Your task to perform on an android device: turn on the 24-hour format for clock Image 0: 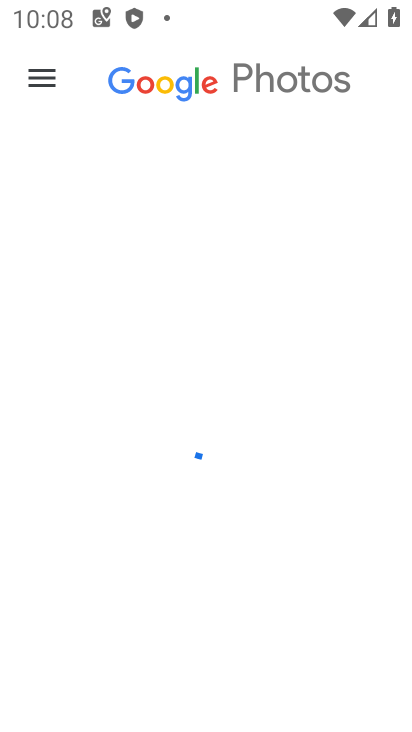
Step 0: press home button
Your task to perform on an android device: turn on the 24-hour format for clock Image 1: 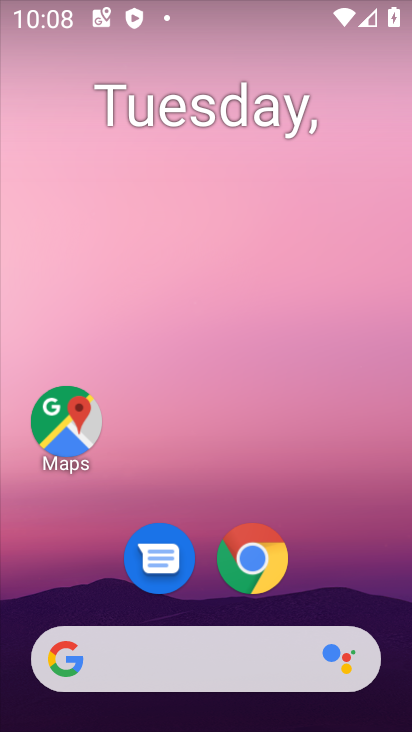
Step 1: drag from (328, 233) to (328, 14)
Your task to perform on an android device: turn on the 24-hour format for clock Image 2: 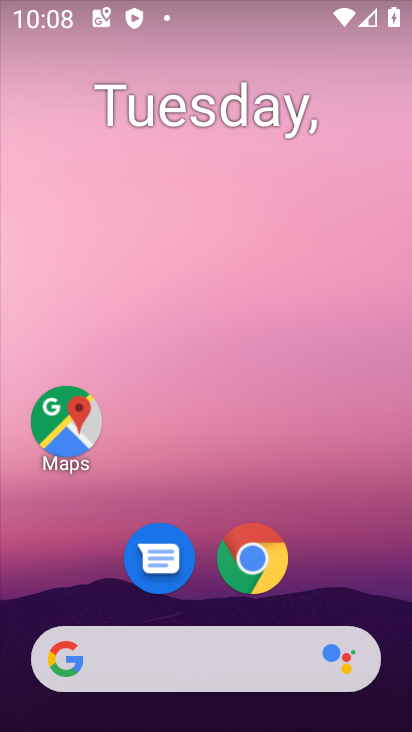
Step 2: drag from (335, 579) to (345, 1)
Your task to perform on an android device: turn on the 24-hour format for clock Image 3: 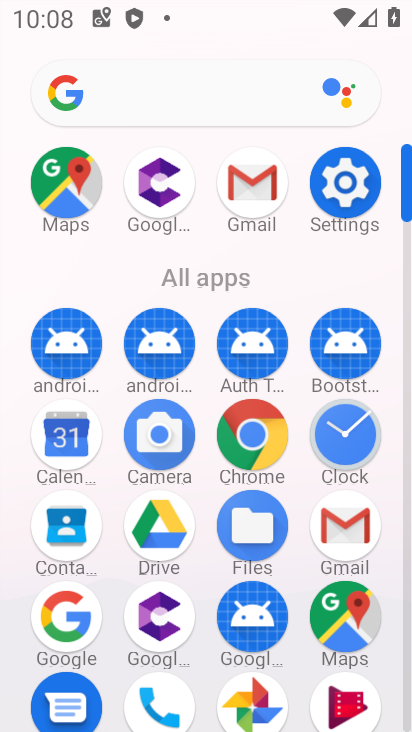
Step 3: click (337, 180)
Your task to perform on an android device: turn on the 24-hour format for clock Image 4: 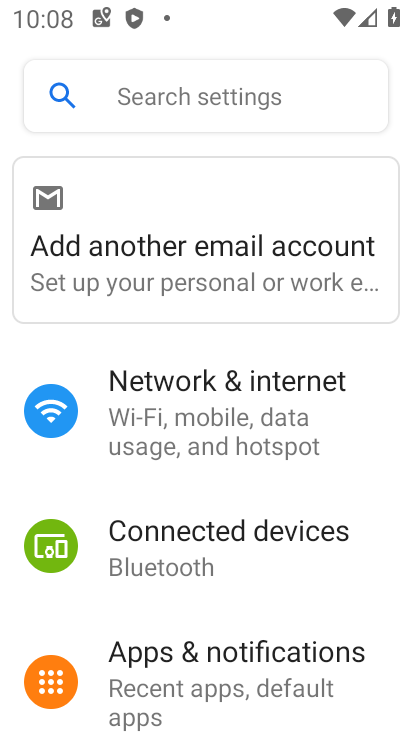
Step 4: drag from (191, 600) to (221, 141)
Your task to perform on an android device: turn on the 24-hour format for clock Image 5: 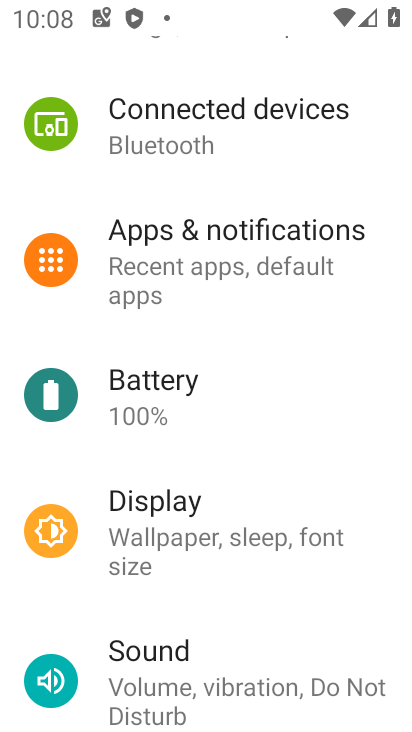
Step 5: drag from (221, 472) to (248, 170)
Your task to perform on an android device: turn on the 24-hour format for clock Image 6: 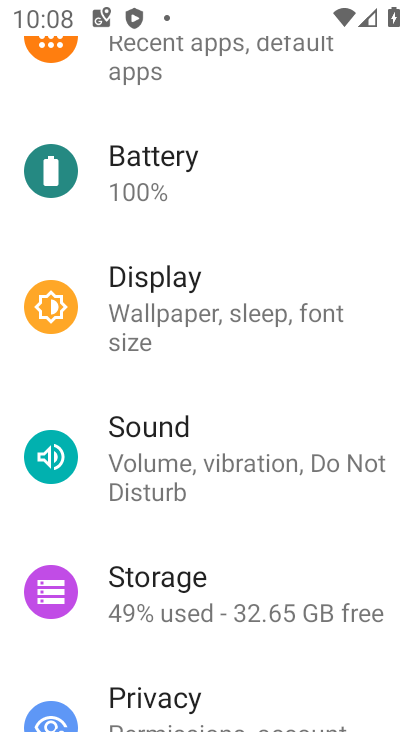
Step 6: drag from (260, 586) to (305, 135)
Your task to perform on an android device: turn on the 24-hour format for clock Image 7: 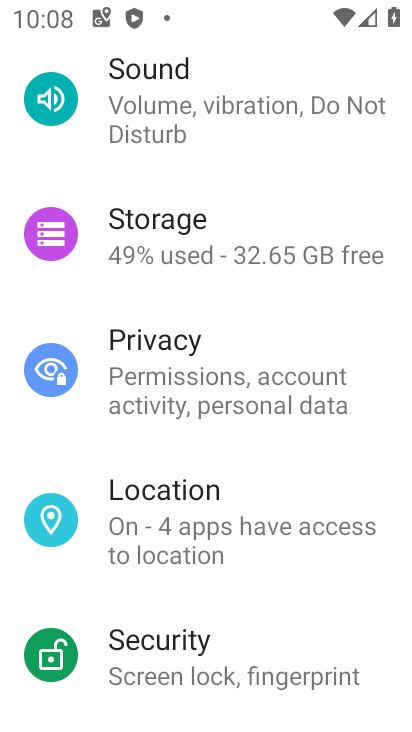
Step 7: drag from (257, 589) to (238, 152)
Your task to perform on an android device: turn on the 24-hour format for clock Image 8: 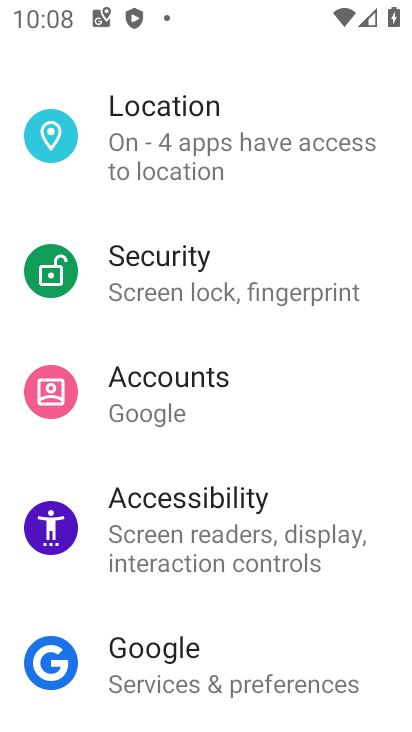
Step 8: drag from (222, 567) to (202, 154)
Your task to perform on an android device: turn on the 24-hour format for clock Image 9: 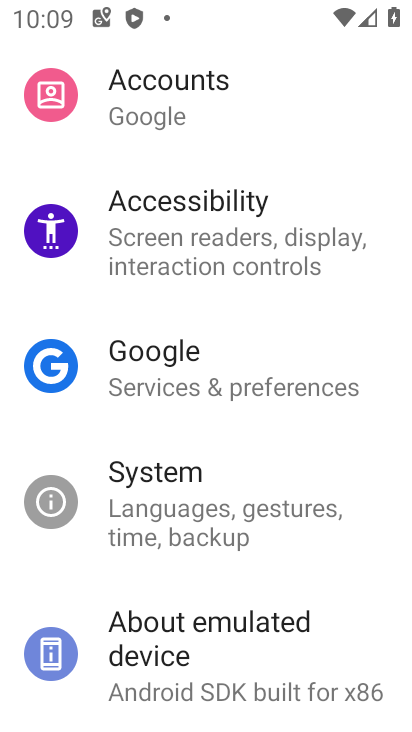
Step 9: click (204, 530)
Your task to perform on an android device: turn on the 24-hour format for clock Image 10: 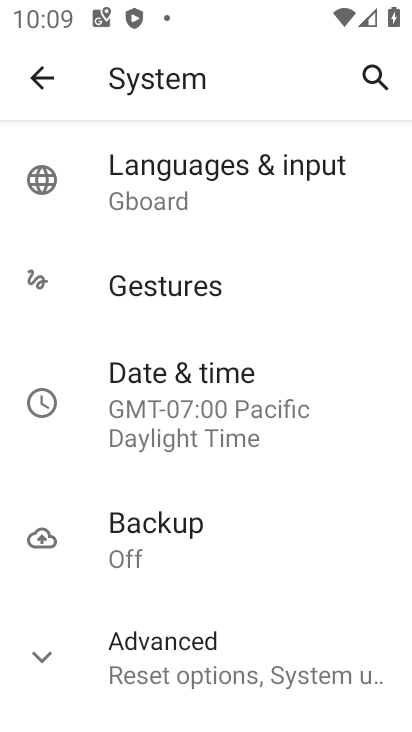
Step 10: click (203, 409)
Your task to perform on an android device: turn on the 24-hour format for clock Image 11: 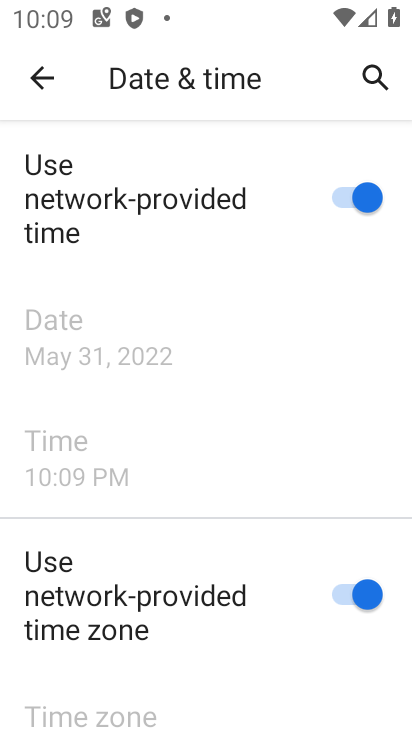
Step 11: drag from (218, 632) to (246, 45)
Your task to perform on an android device: turn on the 24-hour format for clock Image 12: 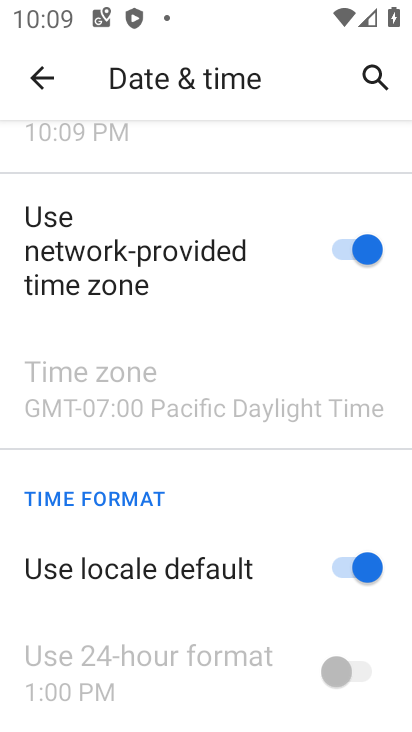
Step 12: click (343, 577)
Your task to perform on an android device: turn on the 24-hour format for clock Image 13: 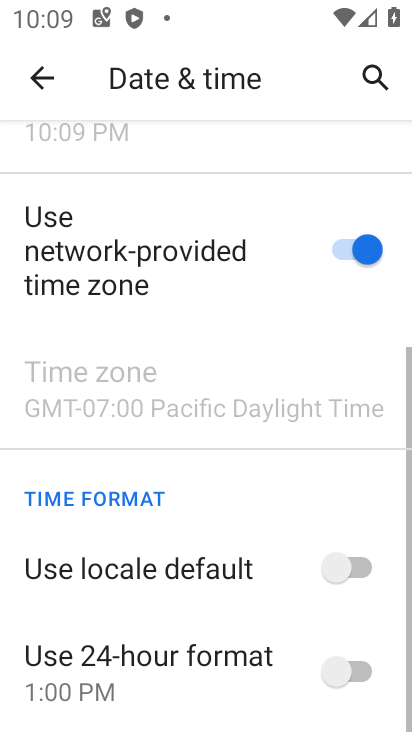
Step 13: click (347, 681)
Your task to perform on an android device: turn on the 24-hour format for clock Image 14: 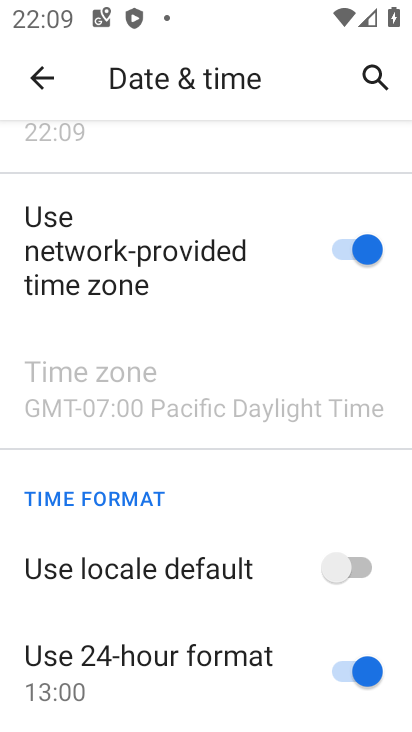
Step 14: task complete